Your task to perform on an android device: Open Maps and search for coffee Image 0: 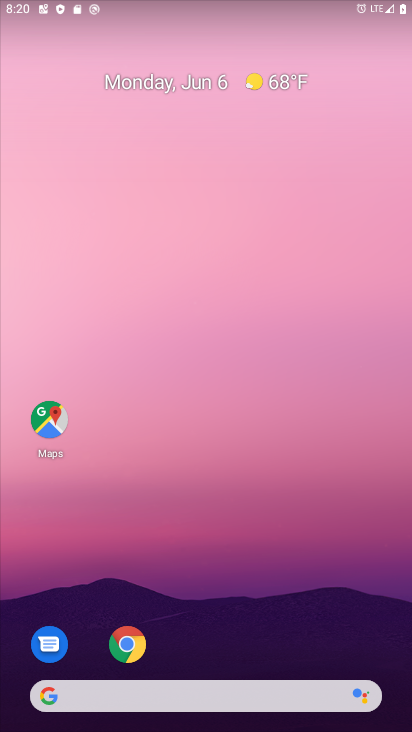
Step 0: drag from (202, 703) to (275, 243)
Your task to perform on an android device: Open Maps and search for coffee Image 1: 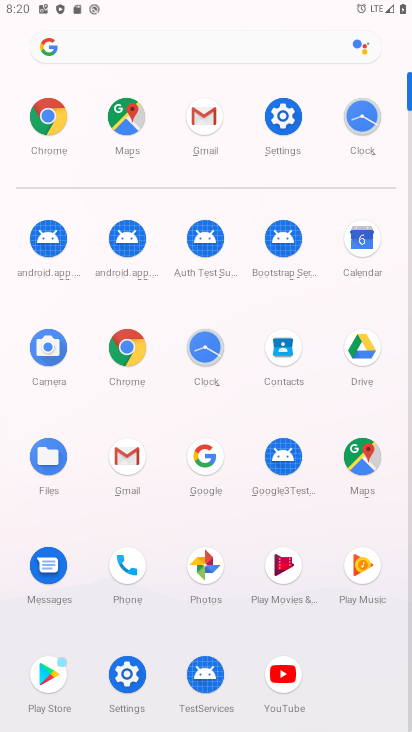
Step 1: click (370, 456)
Your task to perform on an android device: Open Maps and search for coffee Image 2: 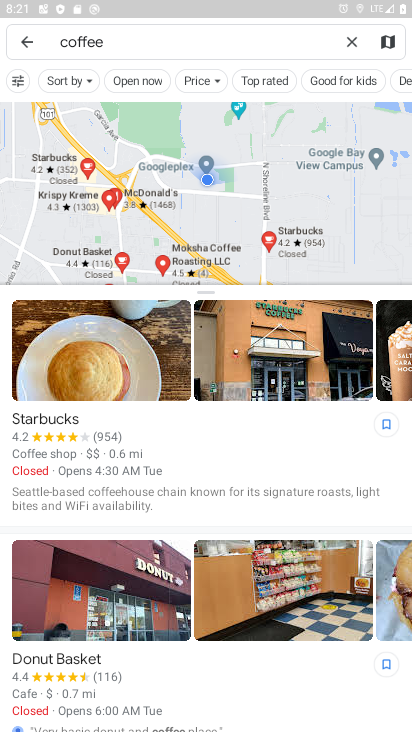
Step 2: click (224, 49)
Your task to perform on an android device: Open Maps and search for coffee Image 3: 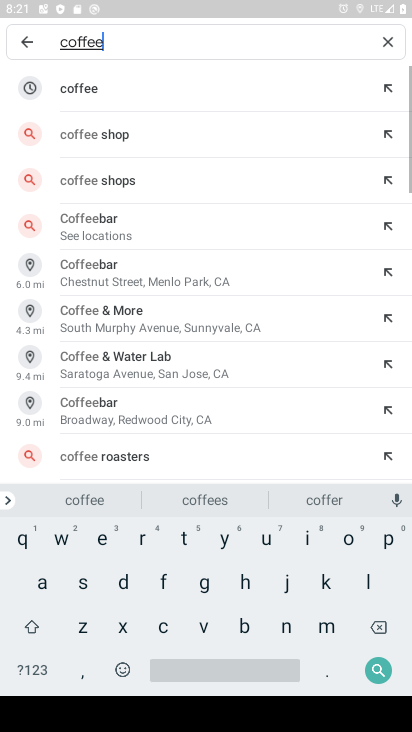
Step 3: click (108, 95)
Your task to perform on an android device: Open Maps and search for coffee Image 4: 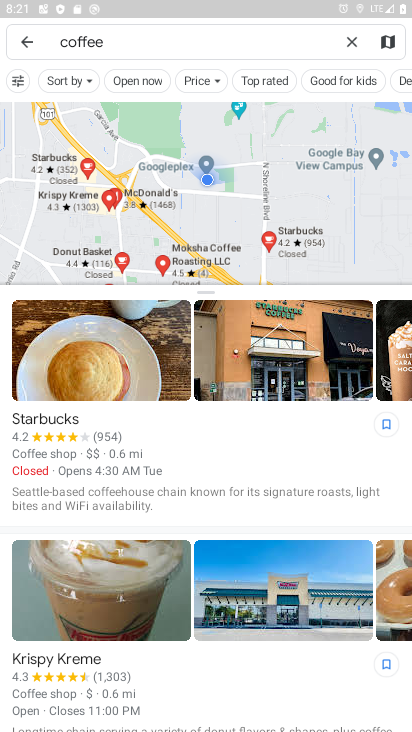
Step 4: task complete